Your task to perform on an android device: install app "HBO Max: Stream TV & Movies" Image 0: 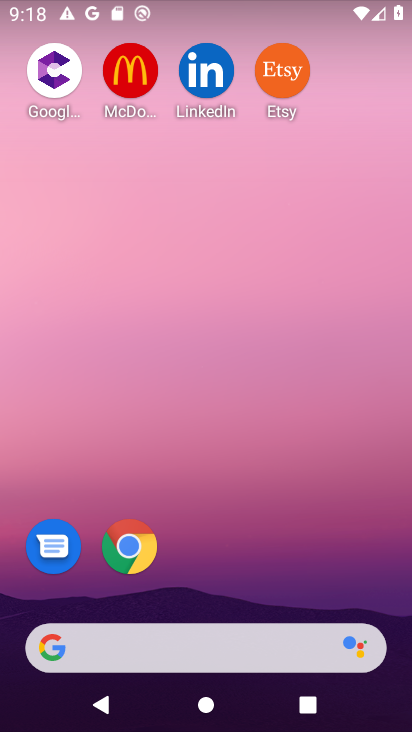
Step 0: drag from (287, 559) to (220, 265)
Your task to perform on an android device: install app "HBO Max: Stream TV & Movies" Image 1: 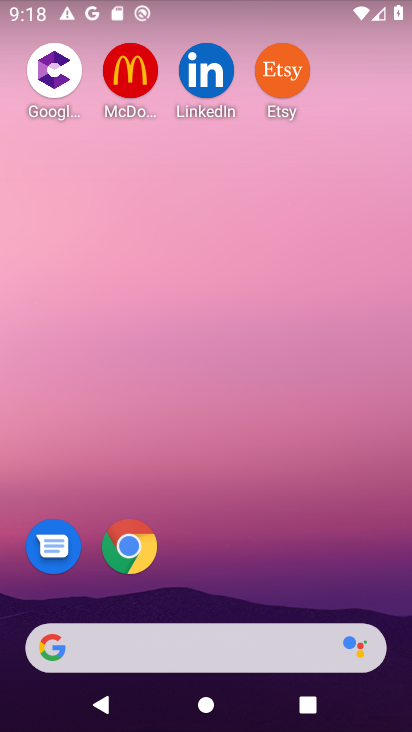
Step 1: drag from (258, 560) to (151, 116)
Your task to perform on an android device: install app "HBO Max: Stream TV & Movies" Image 2: 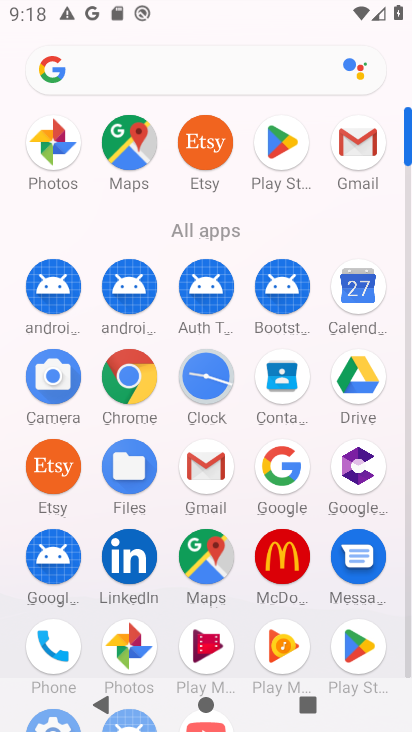
Step 2: click (286, 151)
Your task to perform on an android device: install app "HBO Max: Stream TV & Movies" Image 3: 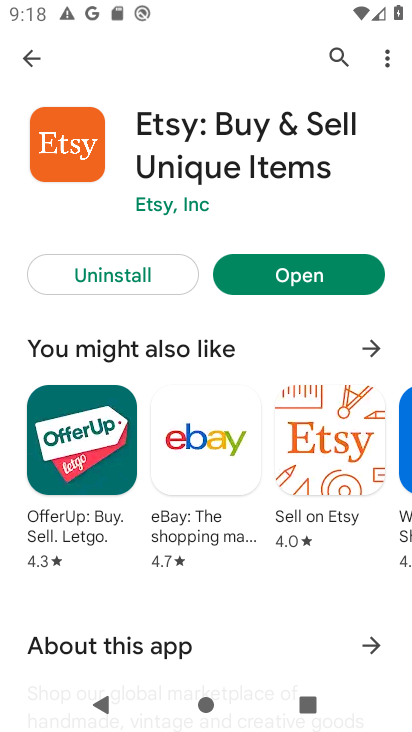
Step 3: click (346, 41)
Your task to perform on an android device: install app "HBO Max: Stream TV & Movies" Image 4: 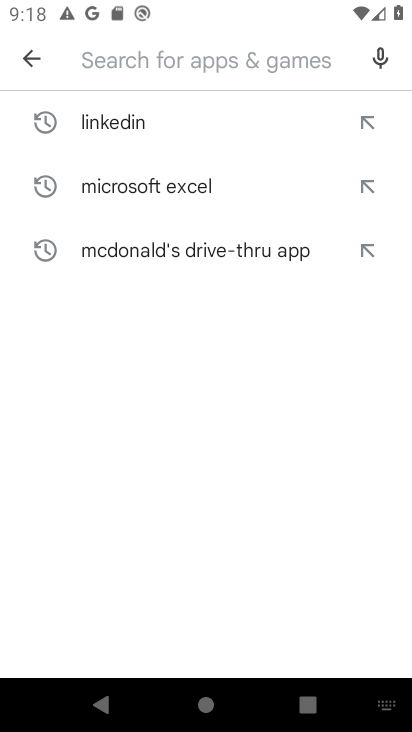
Step 4: type "HBO Max: Stream TV & Movies"
Your task to perform on an android device: install app "HBO Max: Stream TV & Movies" Image 5: 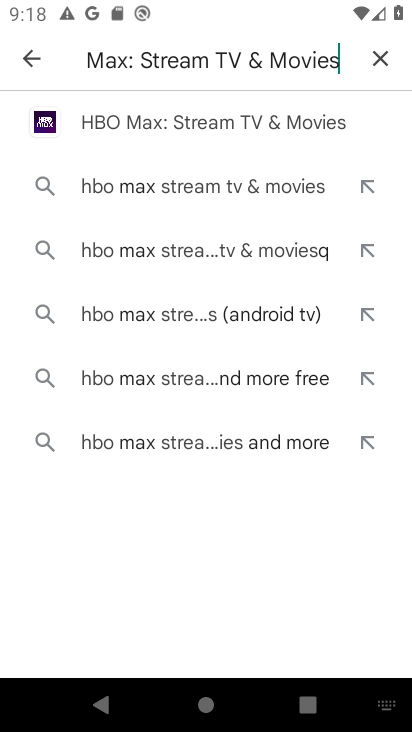
Step 5: click (214, 128)
Your task to perform on an android device: install app "HBO Max: Stream TV & Movies" Image 6: 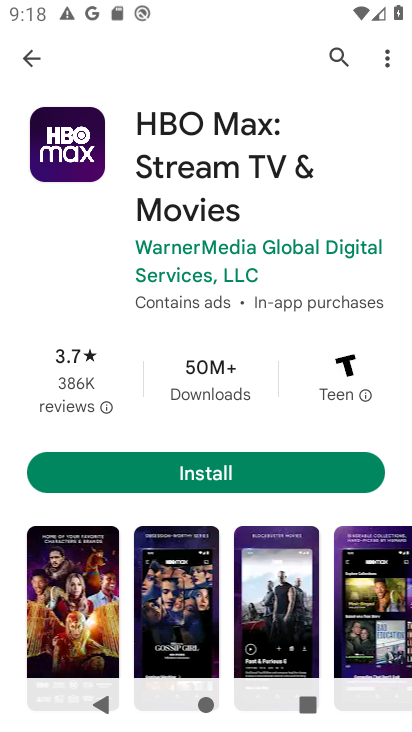
Step 6: click (177, 484)
Your task to perform on an android device: install app "HBO Max: Stream TV & Movies" Image 7: 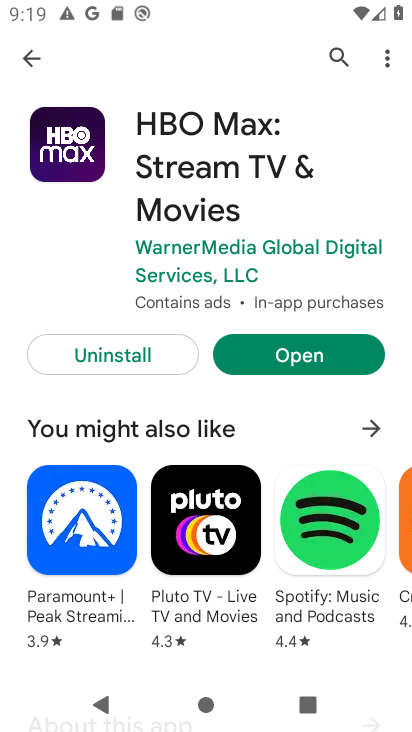
Step 7: task complete